Your task to perform on an android device: turn on wifi Image 0: 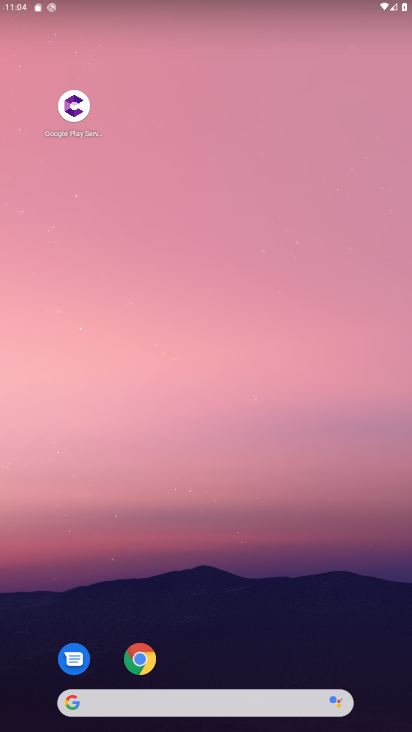
Step 0: drag from (194, 10) to (165, 586)
Your task to perform on an android device: turn on wifi Image 1: 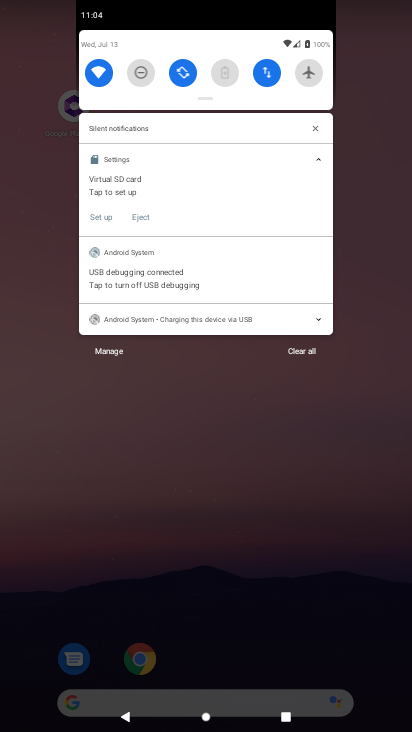
Step 1: click (91, 69)
Your task to perform on an android device: turn on wifi Image 2: 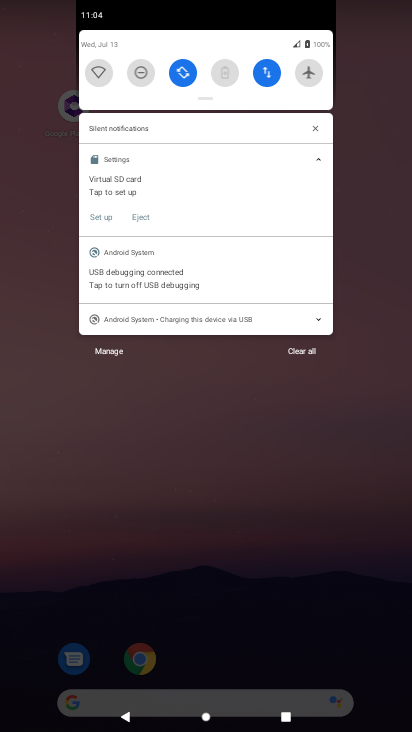
Step 2: task complete